Your task to perform on an android device: check android version Image 0: 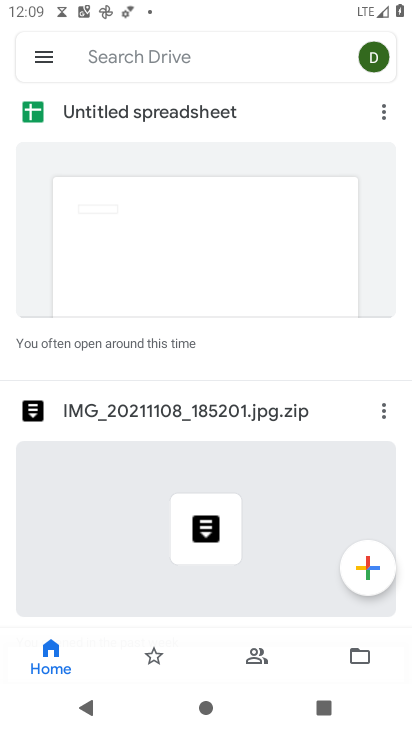
Step 0: drag from (285, 511) to (306, 90)
Your task to perform on an android device: check android version Image 1: 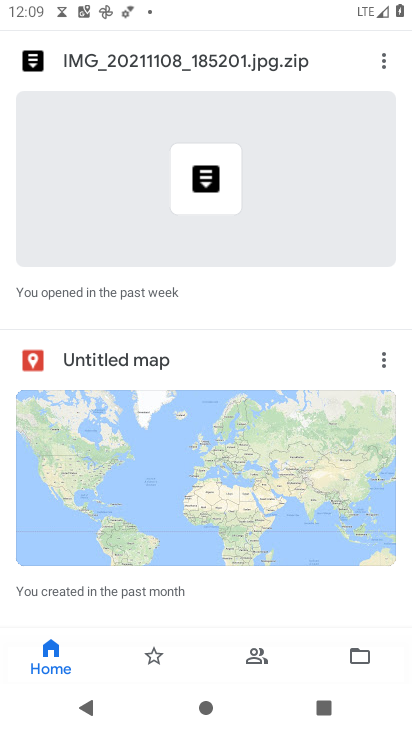
Step 1: press home button
Your task to perform on an android device: check android version Image 2: 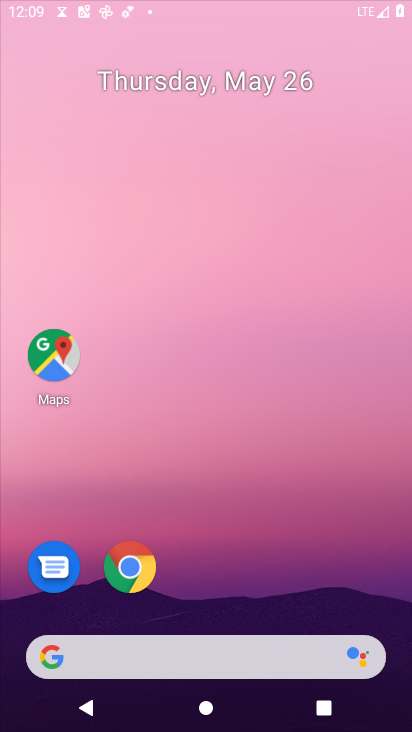
Step 2: press home button
Your task to perform on an android device: check android version Image 3: 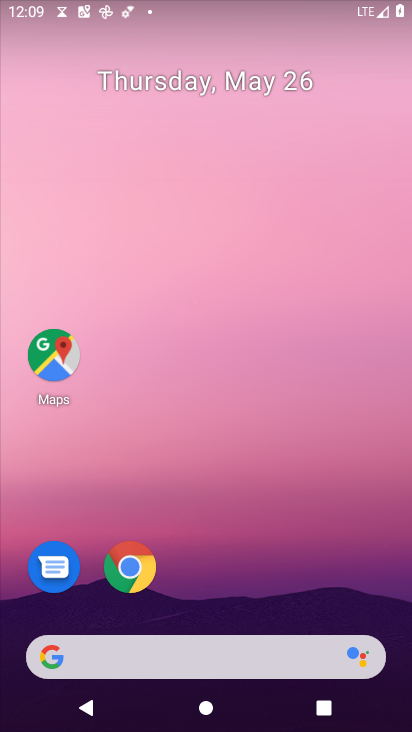
Step 3: drag from (311, 523) to (263, 1)
Your task to perform on an android device: check android version Image 4: 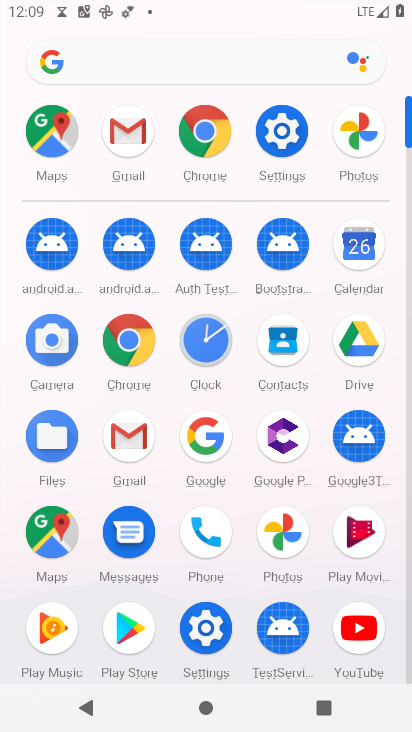
Step 4: click (290, 144)
Your task to perform on an android device: check android version Image 5: 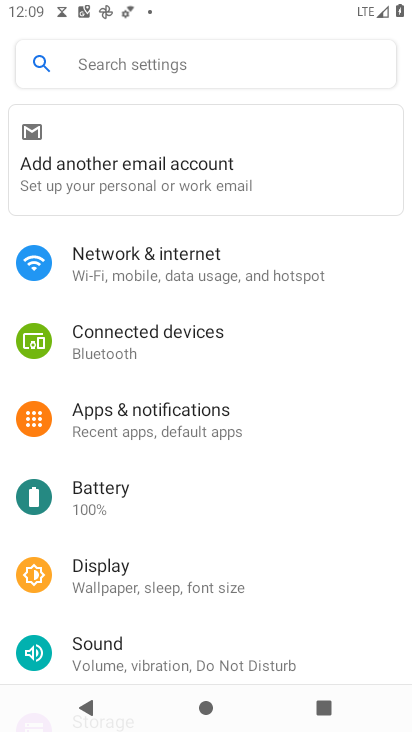
Step 5: drag from (248, 578) to (252, 93)
Your task to perform on an android device: check android version Image 6: 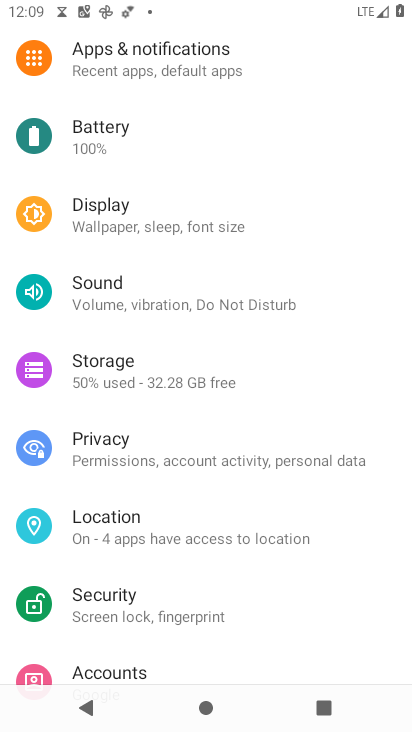
Step 6: drag from (196, 566) to (203, 101)
Your task to perform on an android device: check android version Image 7: 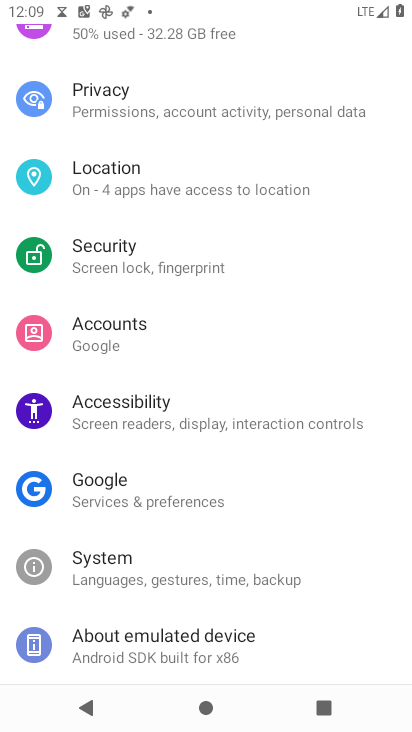
Step 7: drag from (221, 539) to (212, 57)
Your task to perform on an android device: check android version Image 8: 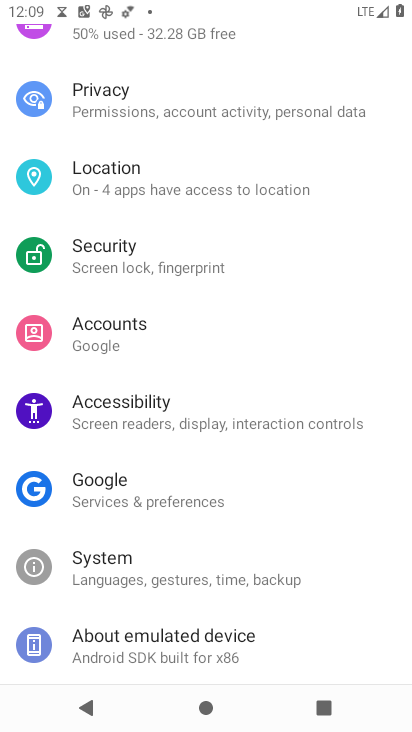
Step 8: click (251, 632)
Your task to perform on an android device: check android version Image 9: 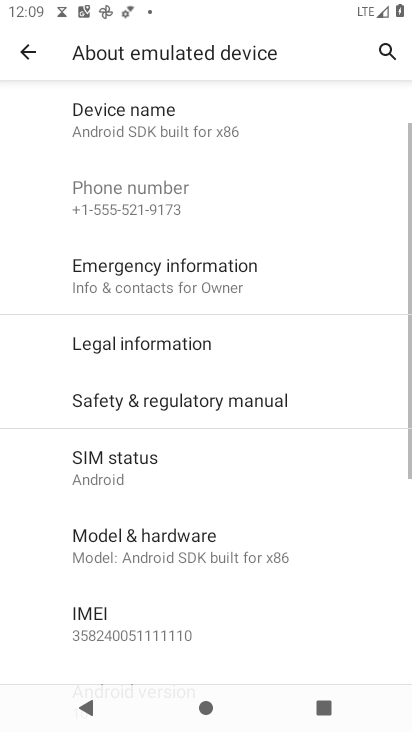
Step 9: drag from (143, 570) to (131, 54)
Your task to perform on an android device: check android version Image 10: 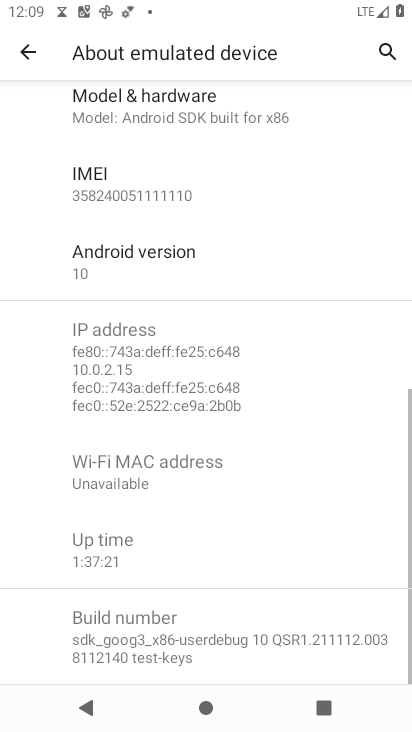
Step 10: click (148, 248)
Your task to perform on an android device: check android version Image 11: 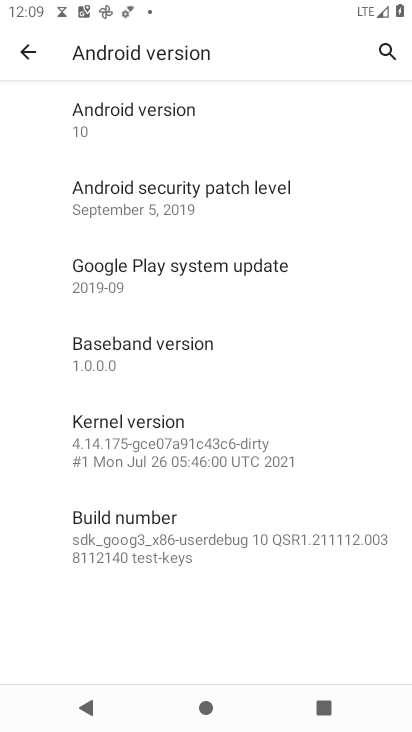
Step 11: task complete